Your task to perform on an android device: clear all cookies in the chrome app Image 0: 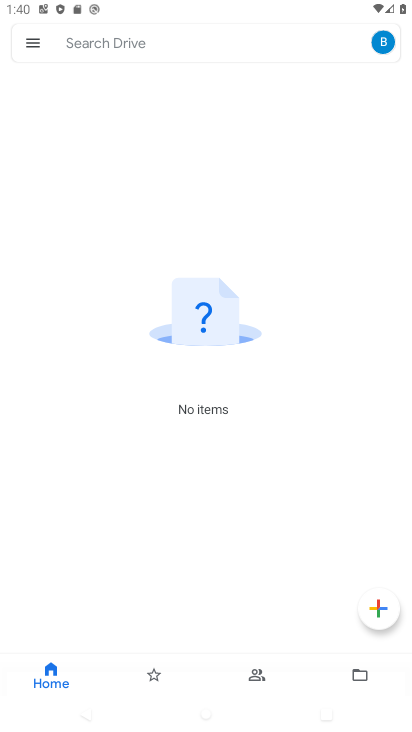
Step 0: press home button
Your task to perform on an android device: clear all cookies in the chrome app Image 1: 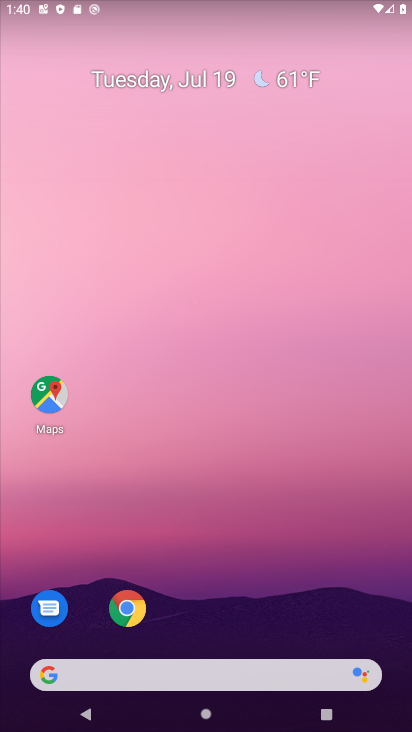
Step 1: drag from (334, 566) to (373, 5)
Your task to perform on an android device: clear all cookies in the chrome app Image 2: 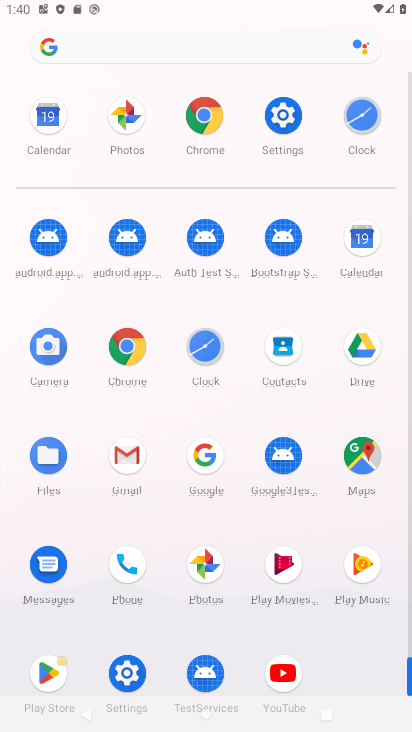
Step 2: click (208, 124)
Your task to perform on an android device: clear all cookies in the chrome app Image 3: 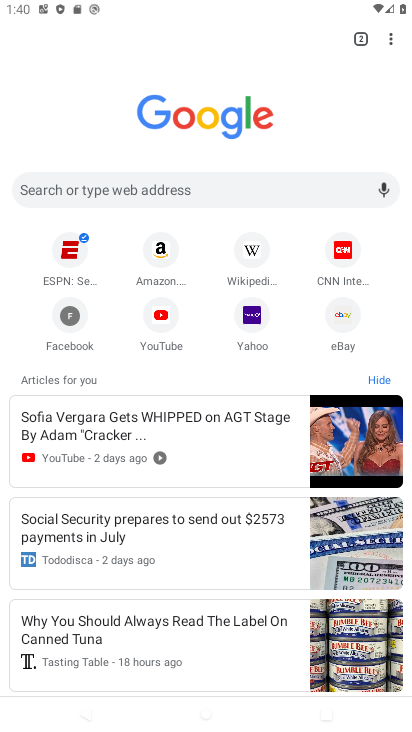
Step 3: drag from (401, 36) to (262, 228)
Your task to perform on an android device: clear all cookies in the chrome app Image 4: 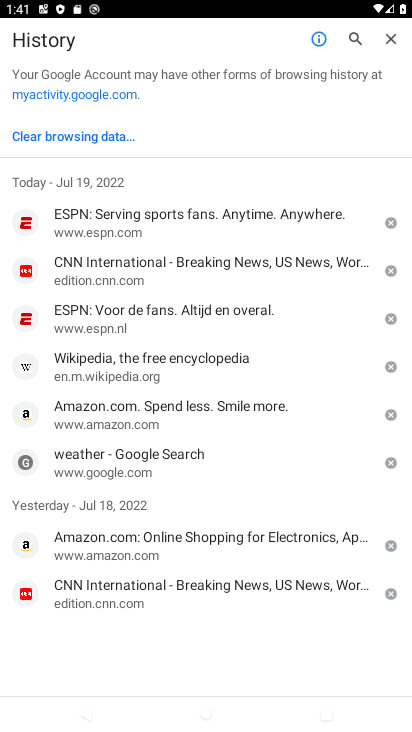
Step 4: click (114, 138)
Your task to perform on an android device: clear all cookies in the chrome app Image 5: 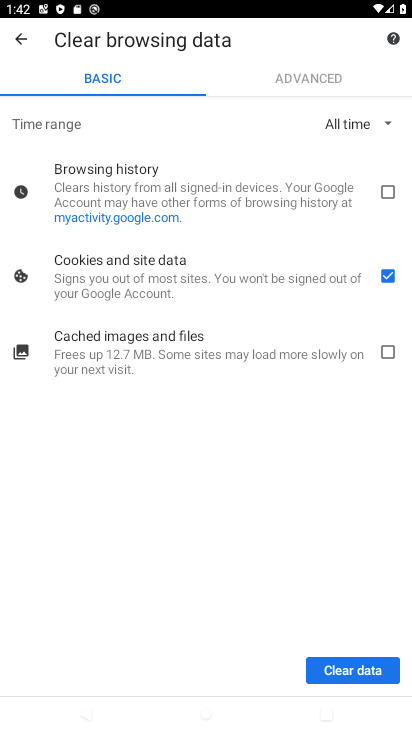
Step 5: click (357, 676)
Your task to perform on an android device: clear all cookies in the chrome app Image 6: 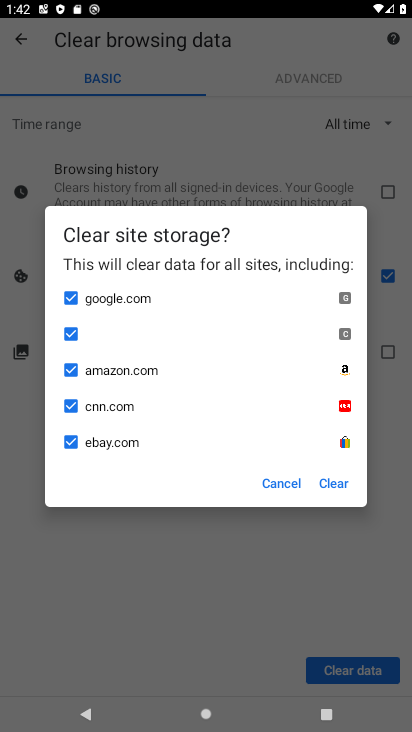
Step 6: click (324, 485)
Your task to perform on an android device: clear all cookies in the chrome app Image 7: 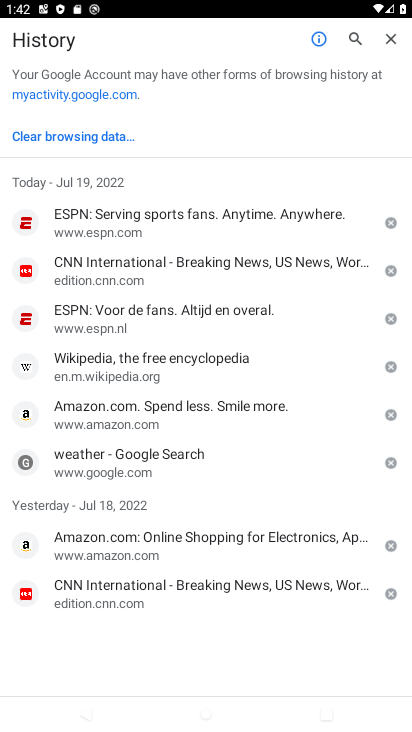
Step 7: task complete